Your task to perform on an android device: Do I have any events tomorrow? Image 0: 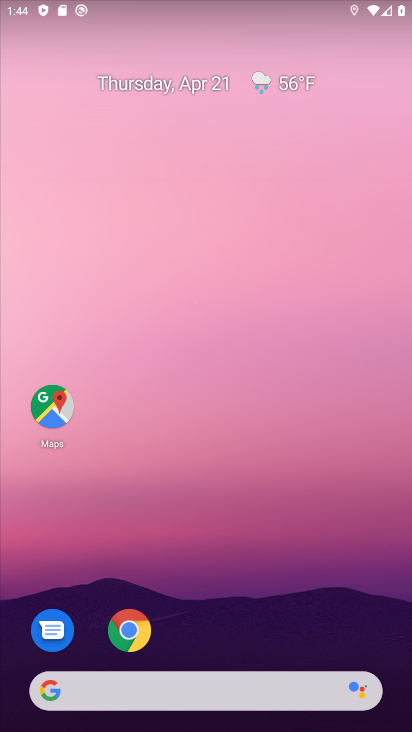
Step 0: drag from (355, 662) to (340, 579)
Your task to perform on an android device: Do I have any events tomorrow? Image 1: 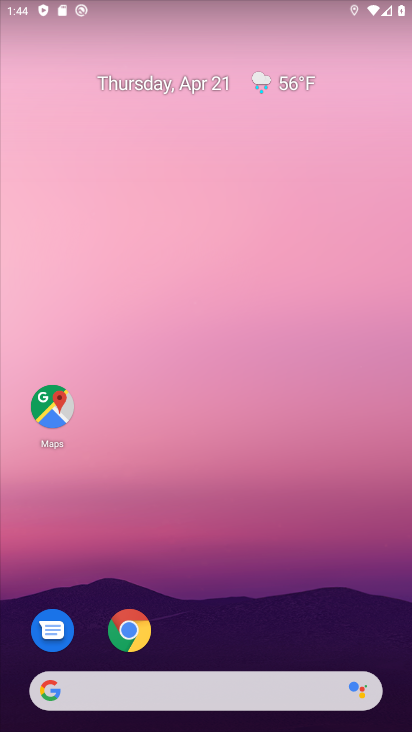
Step 1: drag from (316, 625) to (263, 151)
Your task to perform on an android device: Do I have any events tomorrow? Image 2: 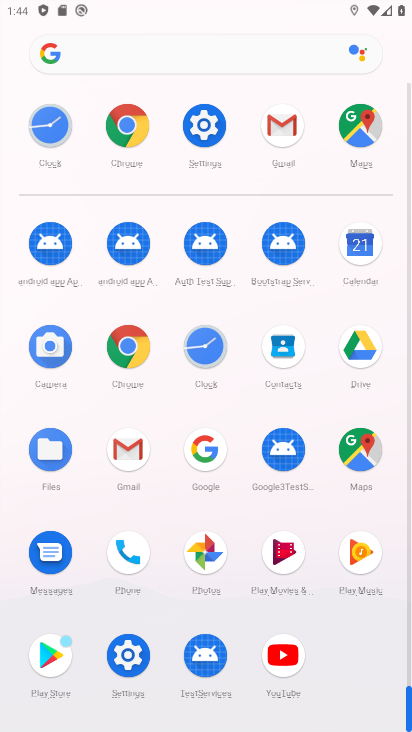
Step 2: click (368, 242)
Your task to perform on an android device: Do I have any events tomorrow? Image 3: 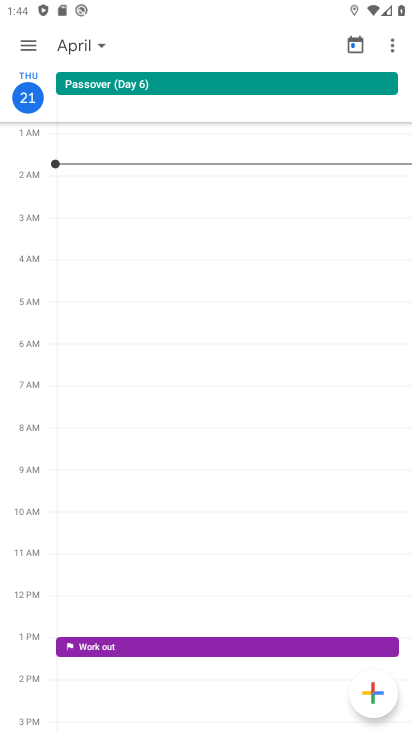
Step 3: click (81, 43)
Your task to perform on an android device: Do I have any events tomorrow? Image 4: 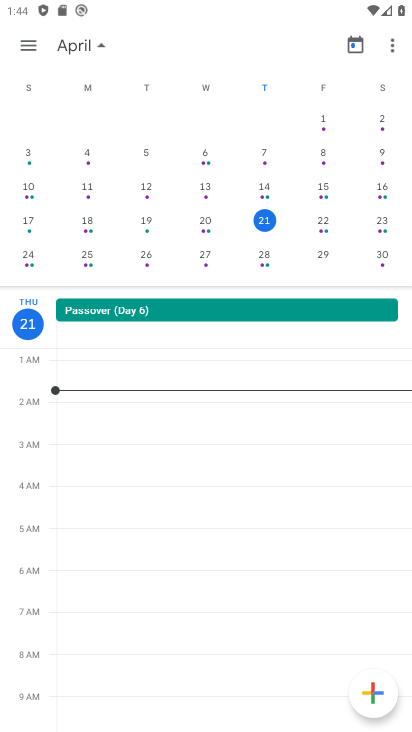
Step 4: click (324, 225)
Your task to perform on an android device: Do I have any events tomorrow? Image 5: 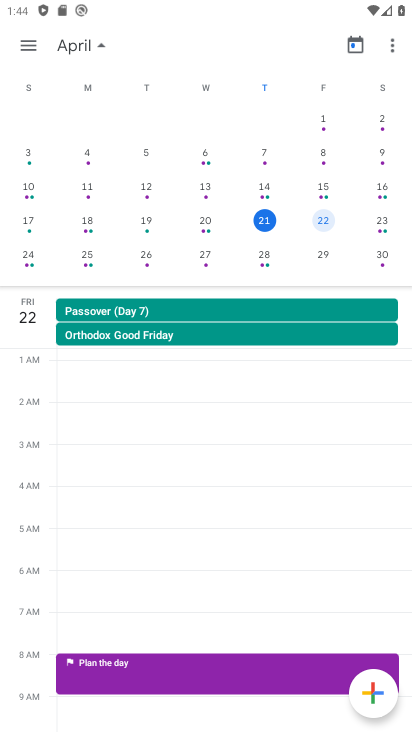
Step 5: task complete